Your task to perform on an android device: Show me popular videos on Youtube Image 0: 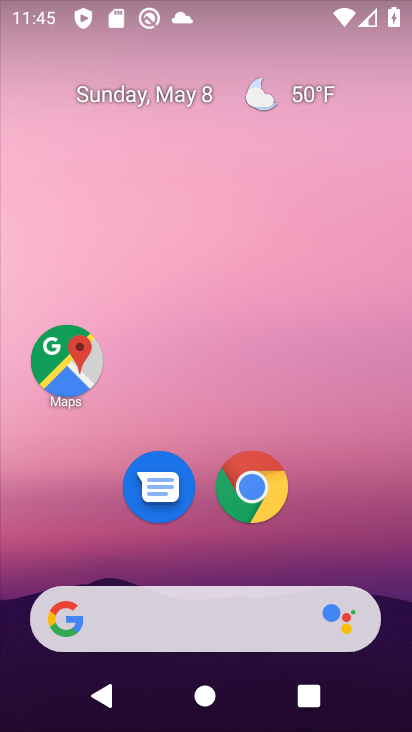
Step 0: drag from (310, 502) to (322, 190)
Your task to perform on an android device: Show me popular videos on Youtube Image 1: 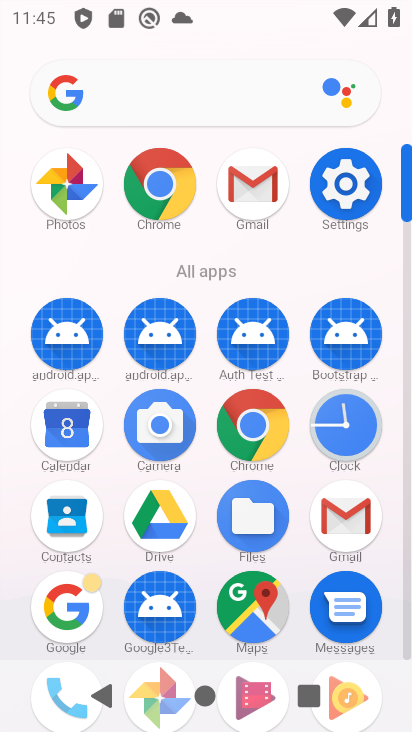
Step 1: drag from (315, 666) to (335, 188)
Your task to perform on an android device: Show me popular videos on Youtube Image 2: 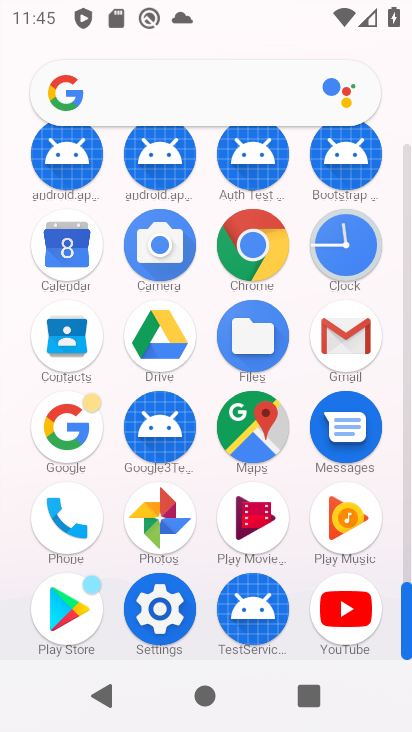
Step 2: click (342, 607)
Your task to perform on an android device: Show me popular videos on Youtube Image 3: 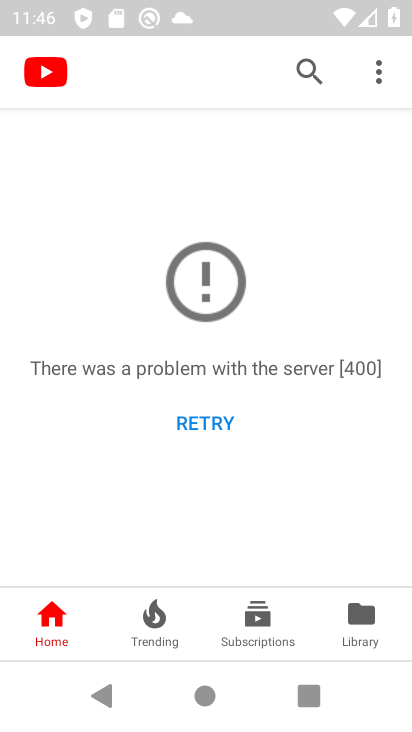
Step 3: click (156, 641)
Your task to perform on an android device: Show me popular videos on Youtube Image 4: 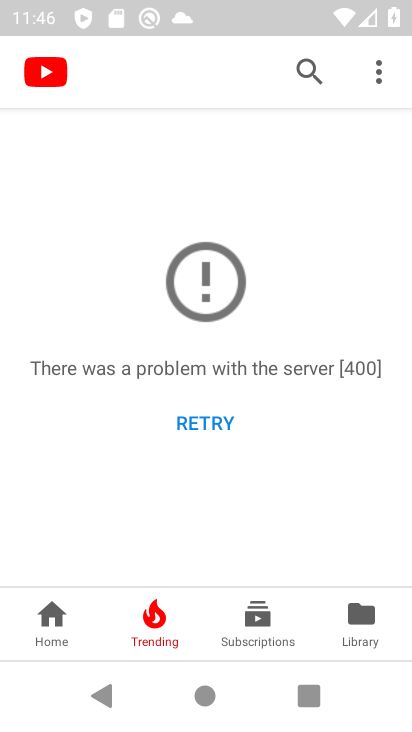
Step 4: task complete